Your task to perform on an android device: choose inbox layout in the gmail app Image 0: 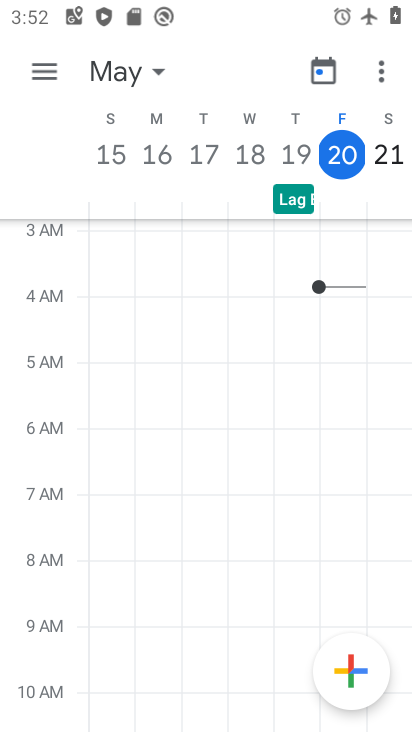
Step 0: press home button
Your task to perform on an android device: choose inbox layout in the gmail app Image 1: 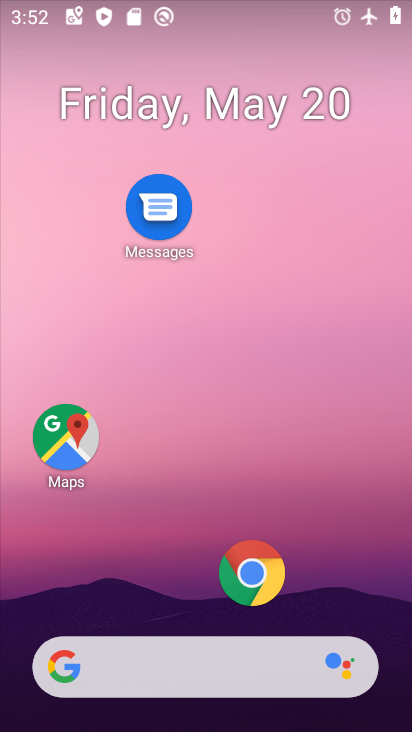
Step 1: drag from (191, 629) to (119, 123)
Your task to perform on an android device: choose inbox layout in the gmail app Image 2: 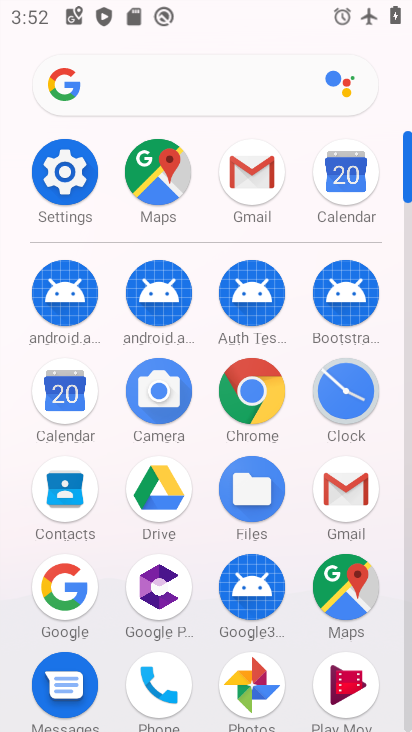
Step 2: click (344, 500)
Your task to perform on an android device: choose inbox layout in the gmail app Image 3: 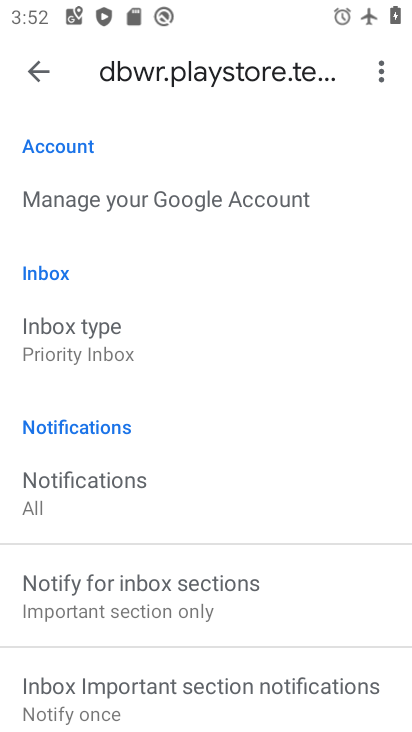
Step 3: click (85, 328)
Your task to perform on an android device: choose inbox layout in the gmail app Image 4: 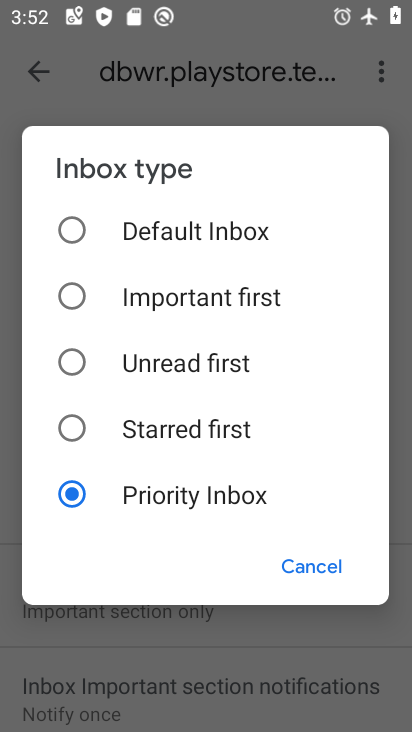
Step 4: click (104, 516)
Your task to perform on an android device: choose inbox layout in the gmail app Image 5: 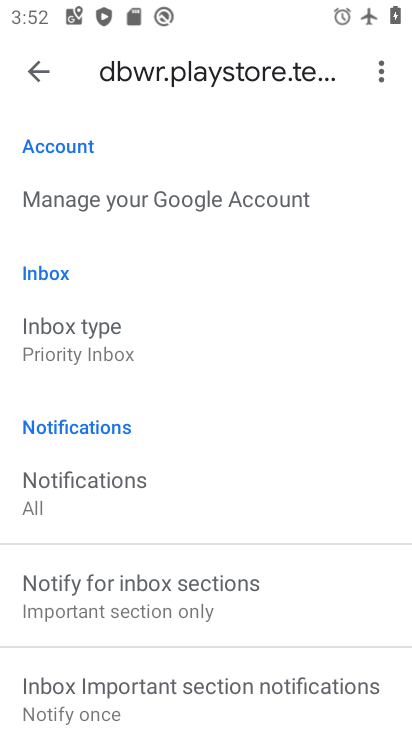
Step 5: click (52, 57)
Your task to perform on an android device: choose inbox layout in the gmail app Image 6: 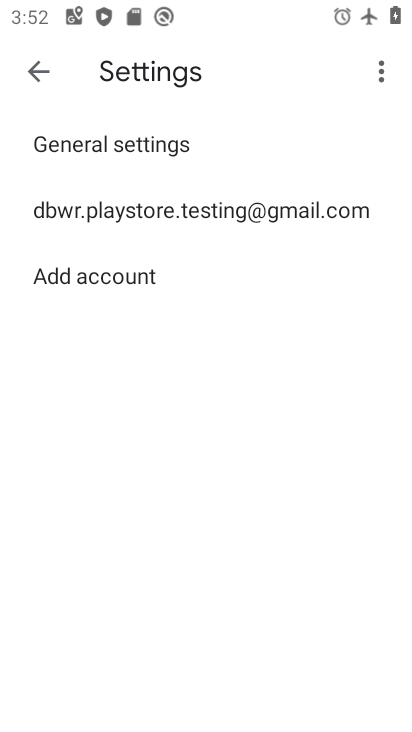
Step 6: click (53, 66)
Your task to perform on an android device: choose inbox layout in the gmail app Image 7: 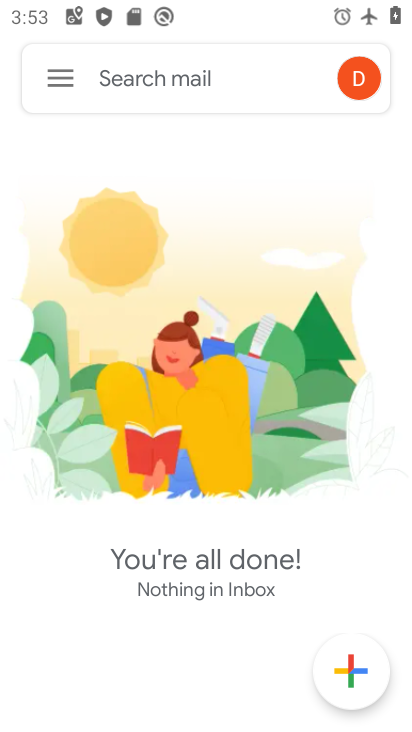
Step 7: task complete